Your task to perform on an android device: find which apps use the phone's location Image 0: 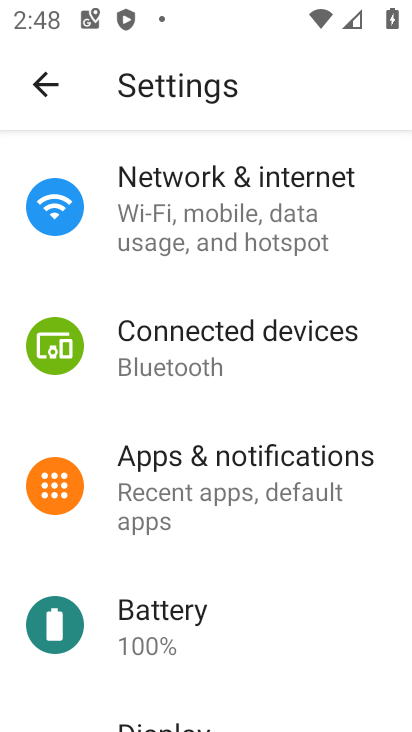
Step 0: press home button
Your task to perform on an android device: find which apps use the phone's location Image 1: 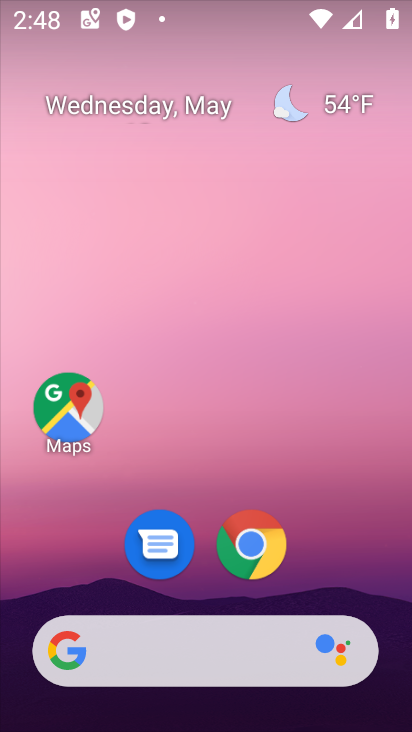
Step 1: drag from (327, 558) to (330, 39)
Your task to perform on an android device: find which apps use the phone's location Image 2: 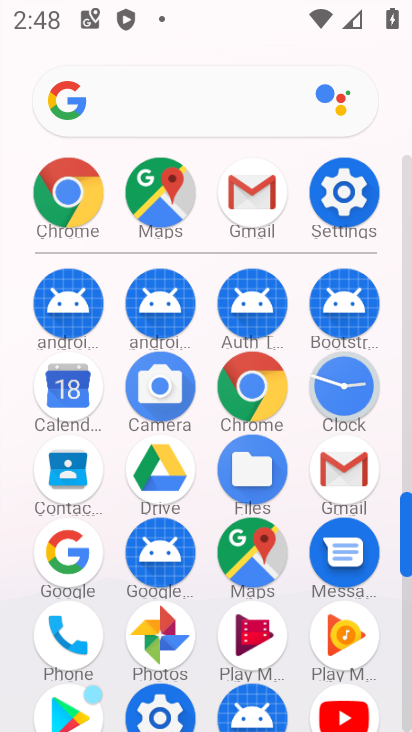
Step 2: click (345, 194)
Your task to perform on an android device: find which apps use the phone's location Image 3: 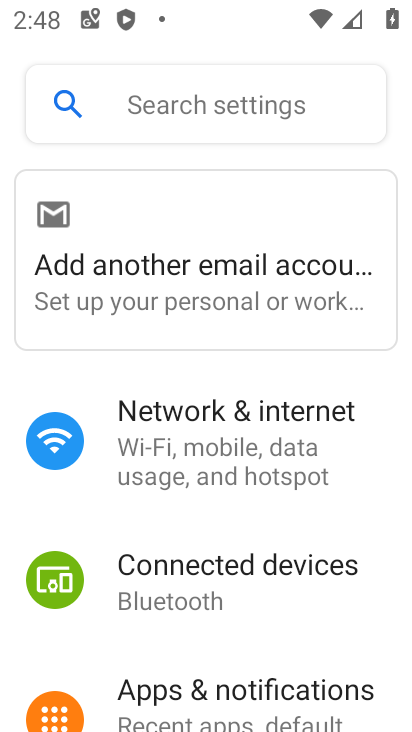
Step 3: drag from (232, 565) to (273, 219)
Your task to perform on an android device: find which apps use the phone's location Image 4: 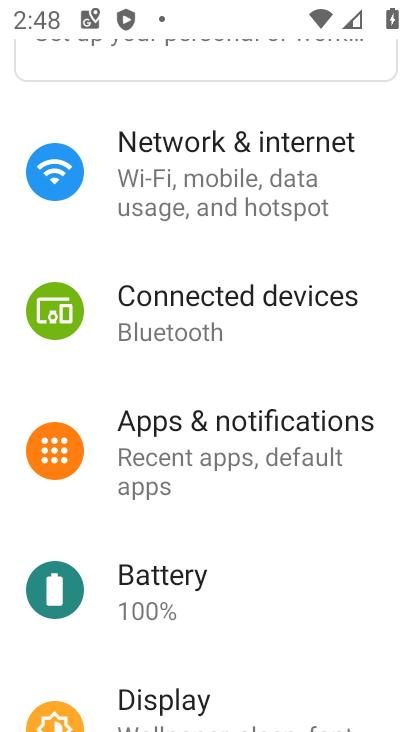
Step 4: drag from (204, 612) to (273, 329)
Your task to perform on an android device: find which apps use the phone's location Image 5: 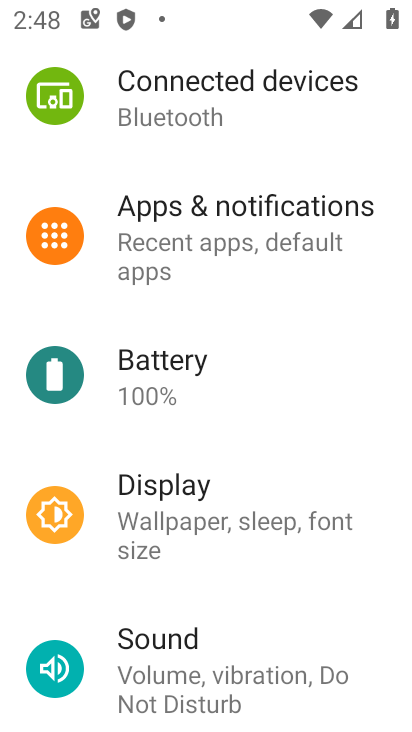
Step 5: drag from (205, 670) to (279, 263)
Your task to perform on an android device: find which apps use the phone's location Image 6: 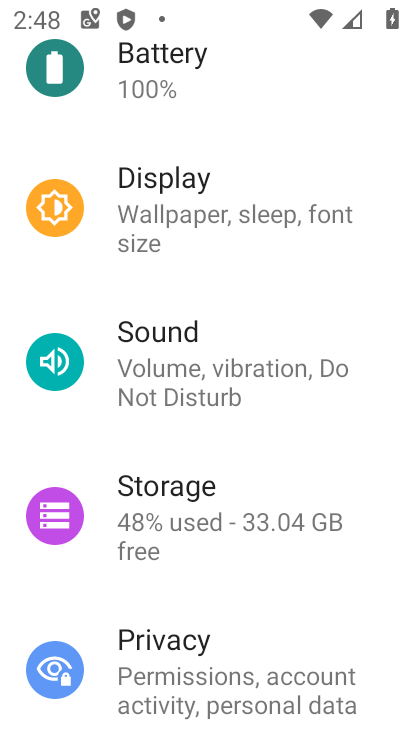
Step 6: drag from (202, 551) to (217, 270)
Your task to perform on an android device: find which apps use the phone's location Image 7: 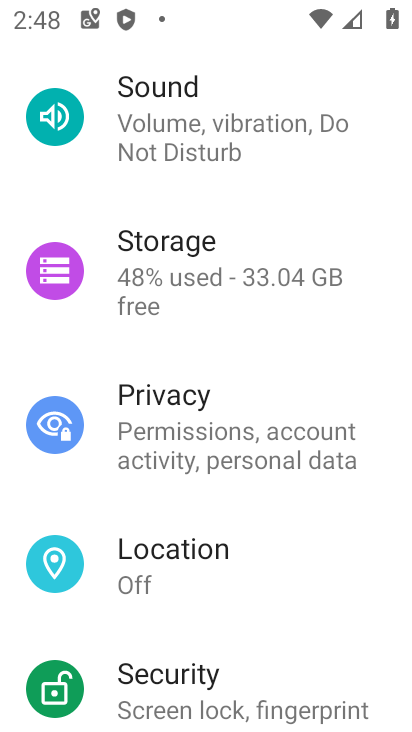
Step 7: click (204, 589)
Your task to perform on an android device: find which apps use the phone's location Image 8: 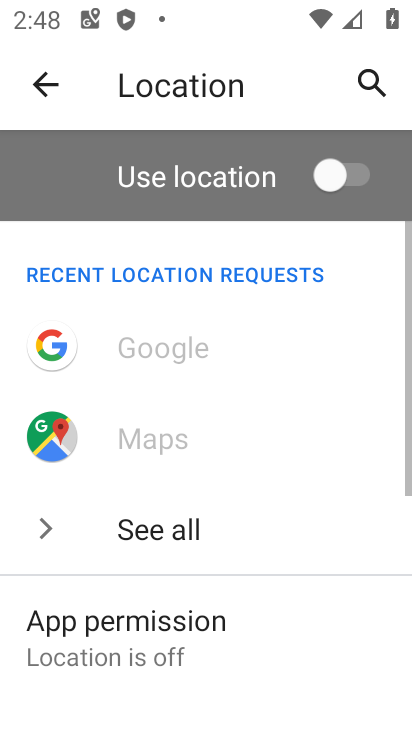
Step 8: click (244, 505)
Your task to perform on an android device: find which apps use the phone's location Image 9: 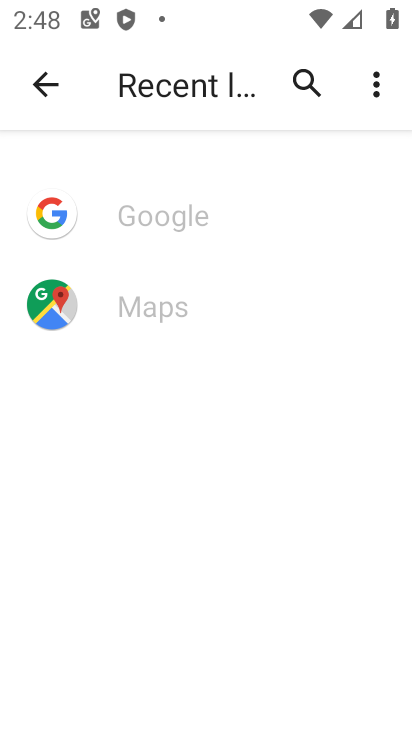
Step 9: task complete